Your task to perform on an android device: Open Chrome and go to the settings page Image 0: 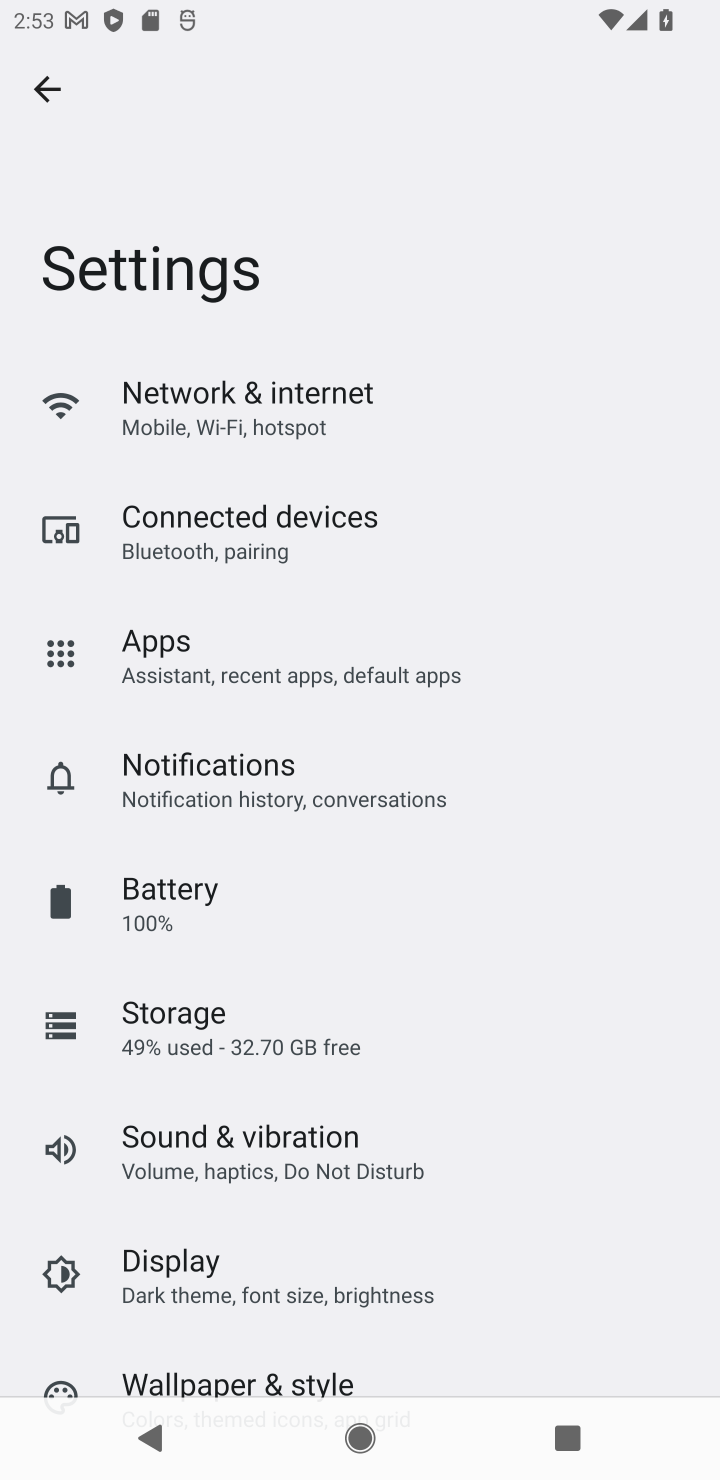
Step 0: press home button
Your task to perform on an android device: Open Chrome and go to the settings page Image 1: 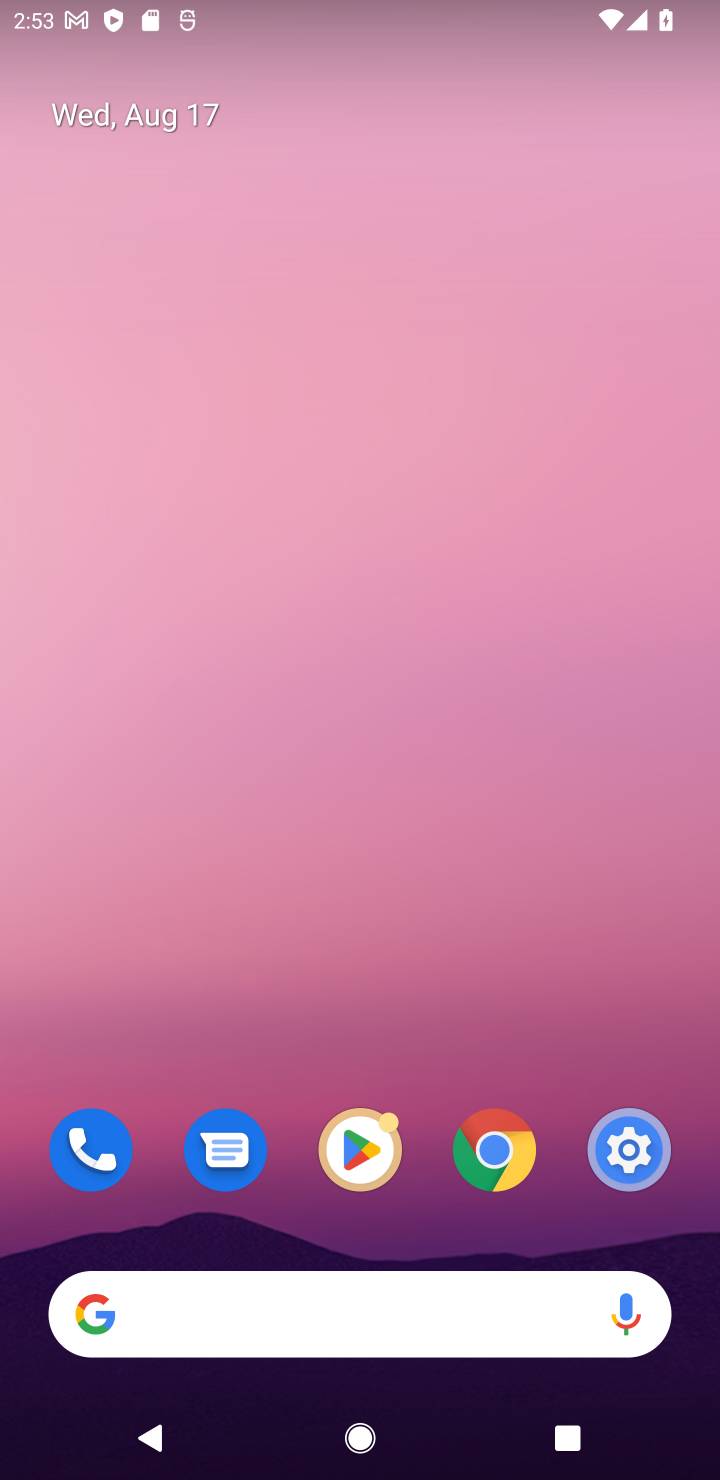
Step 1: drag from (573, 1223) to (117, 437)
Your task to perform on an android device: Open Chrome and go to the settings page Image 2: 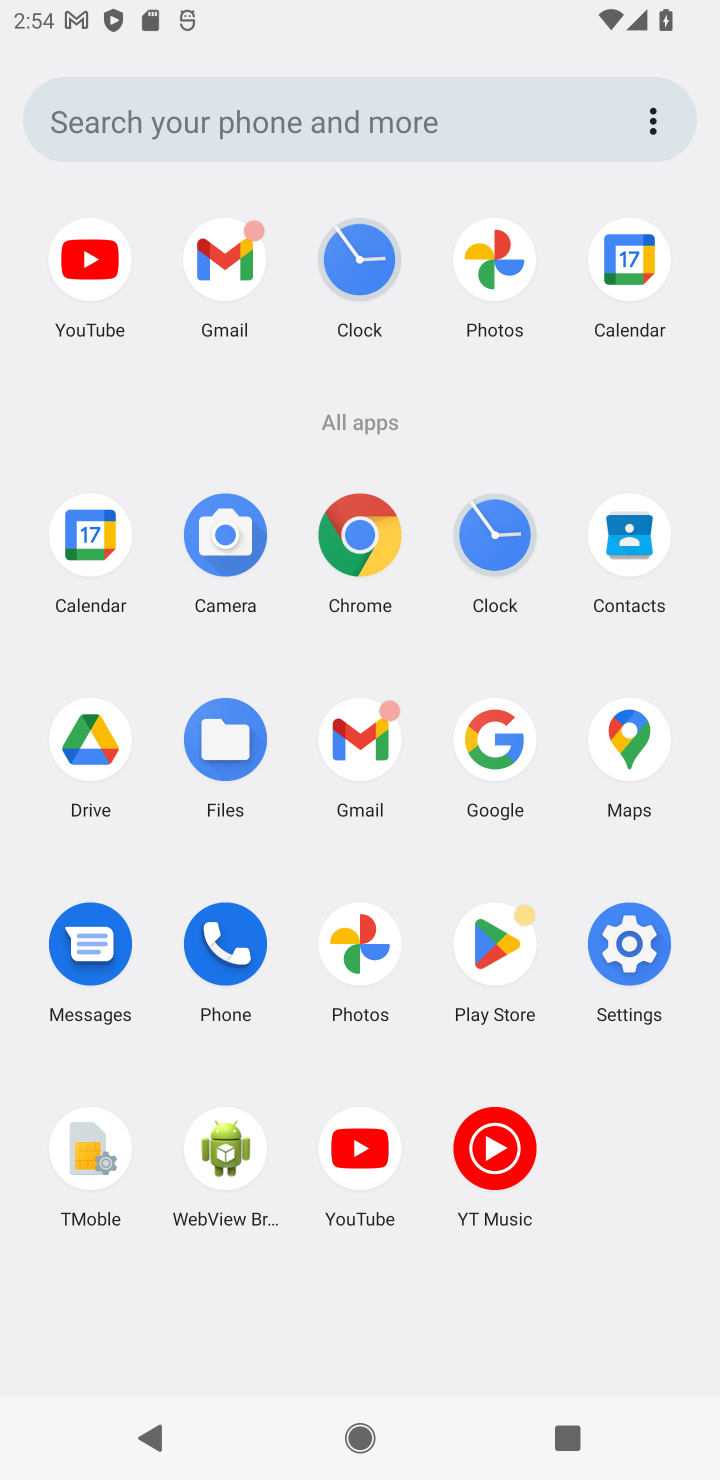
Step 2: click (323, 539)
Your task to perform on an android device: Open Chrome and go to the settings page Image 3: 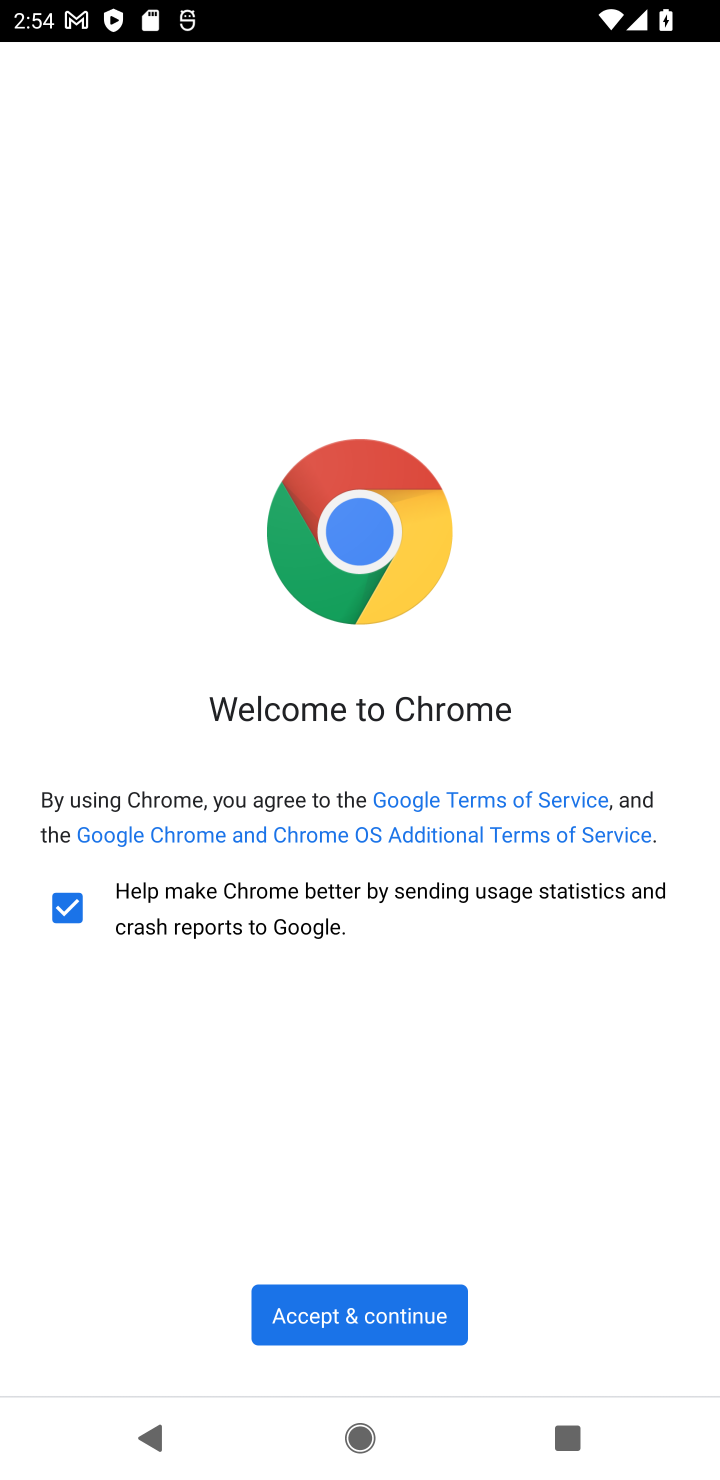
Step 3: click (345, 1317)
Your task to perform on an android device: Open Chrome and go to the settings page Image 4: 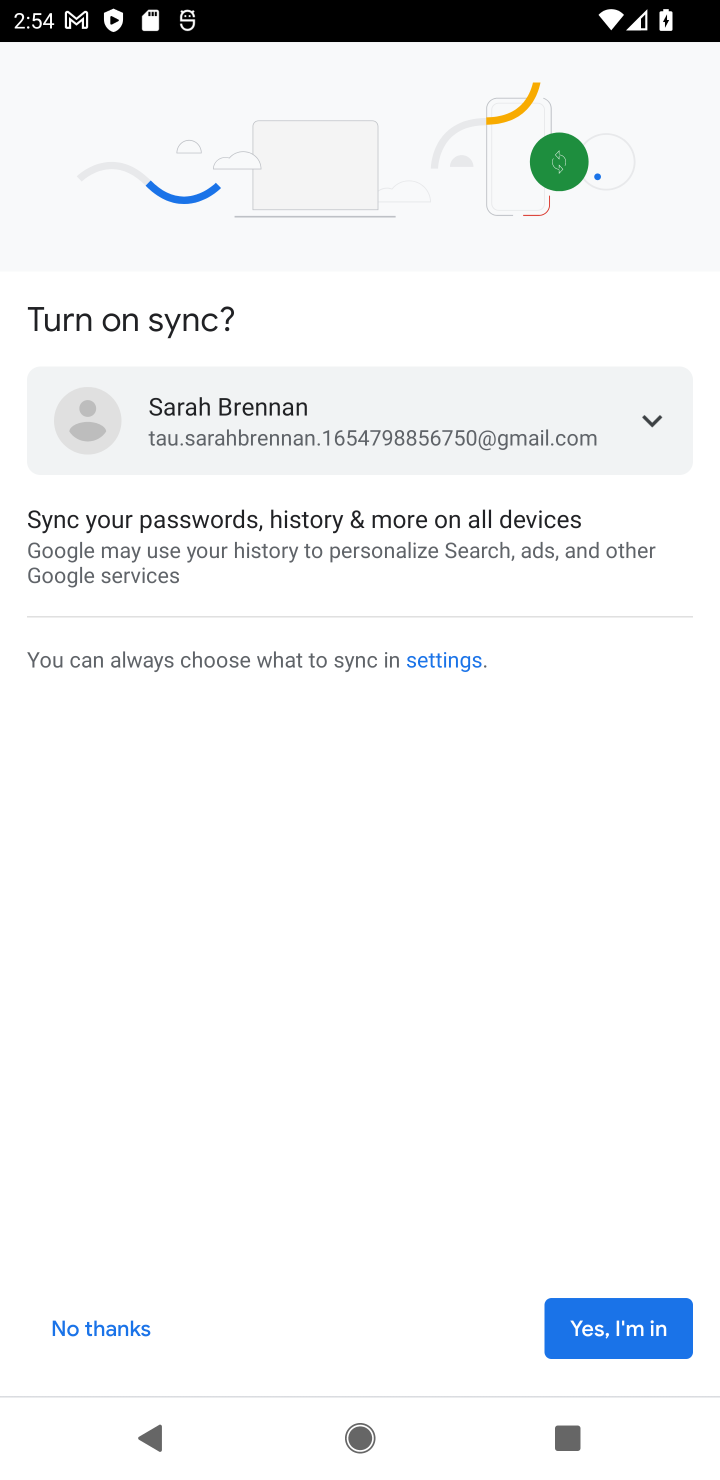
Step 4: click (596, 1339)
Your task to perform on an android device: Open Chrome and go to the settings page Image 5: 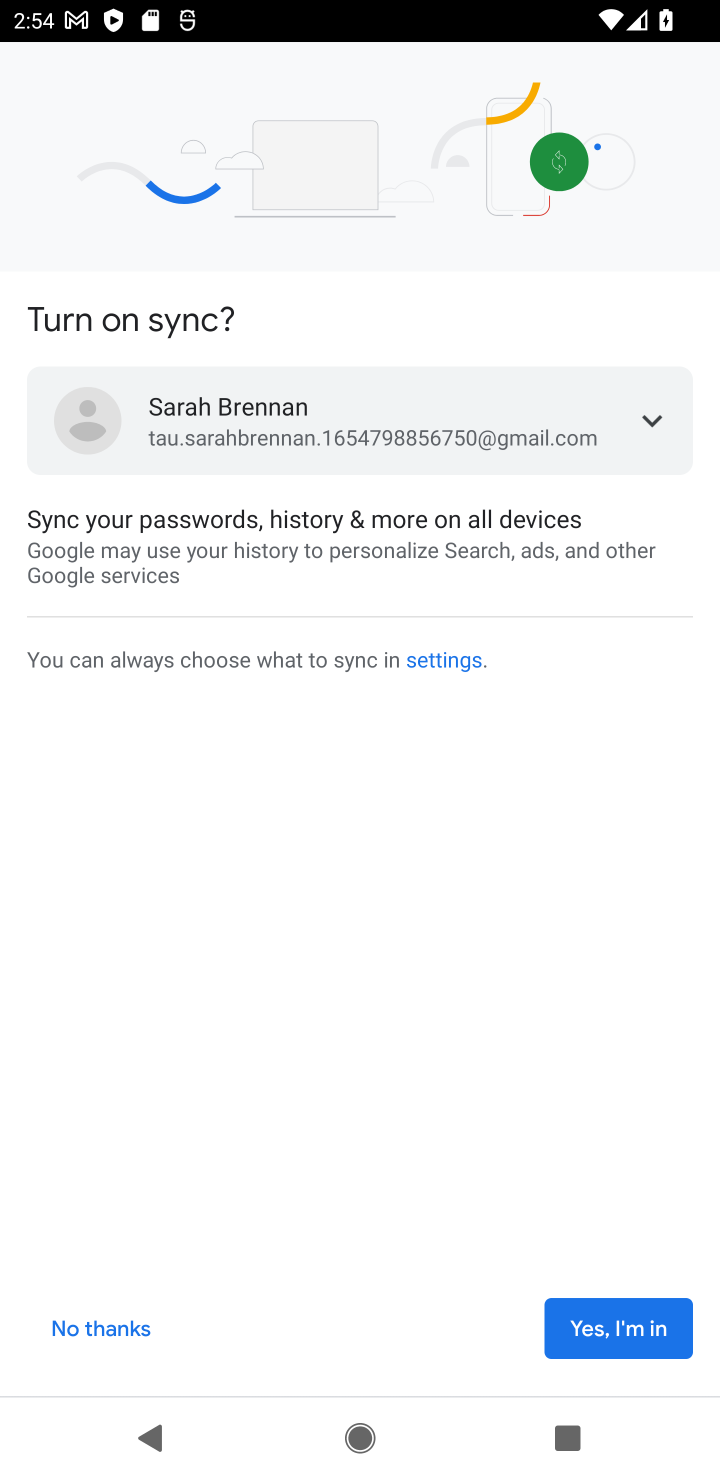
Step 5: click (599, 1335)
Your task to perform on an android device: Open Chrome and go to the settings page Image 6: 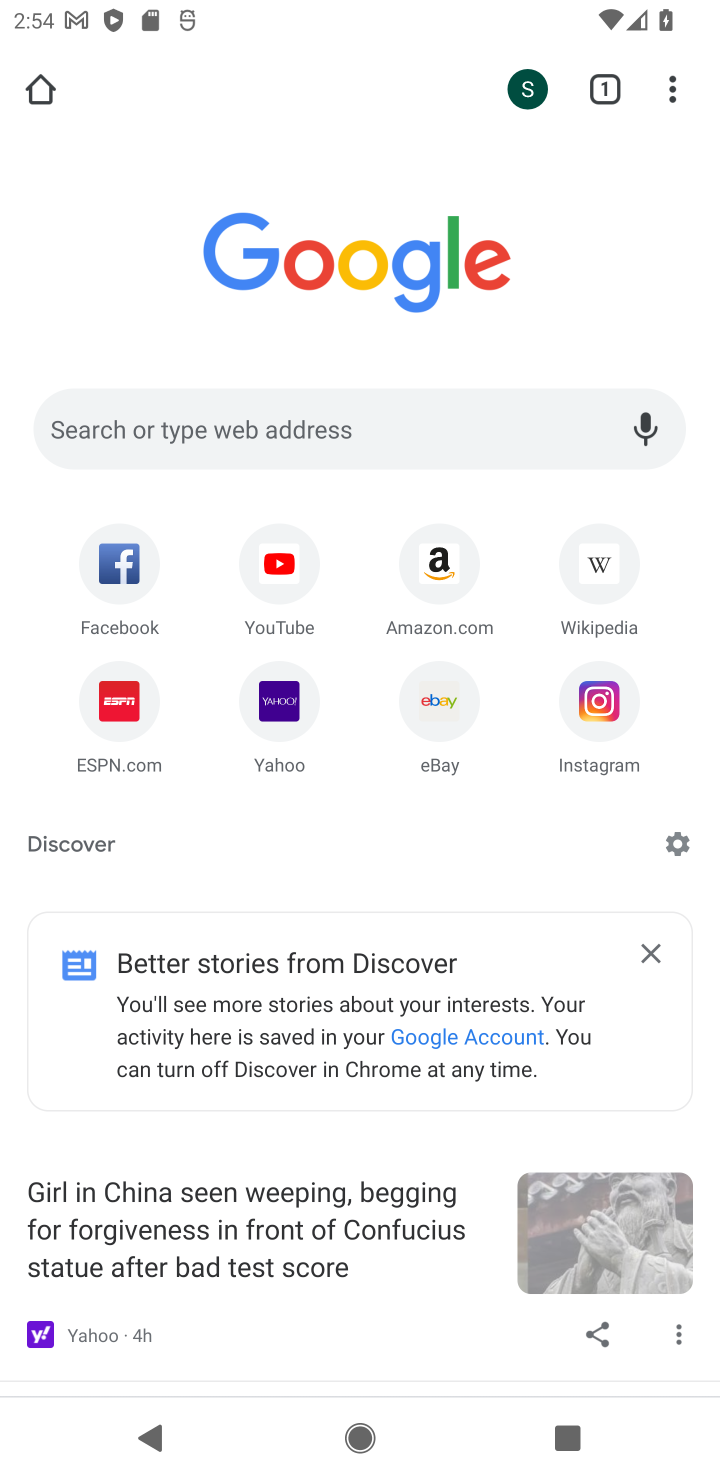
Step 6: click (666, 89)
Your task to perform on an android device: Open Chrome and go to the settings page Image 7: 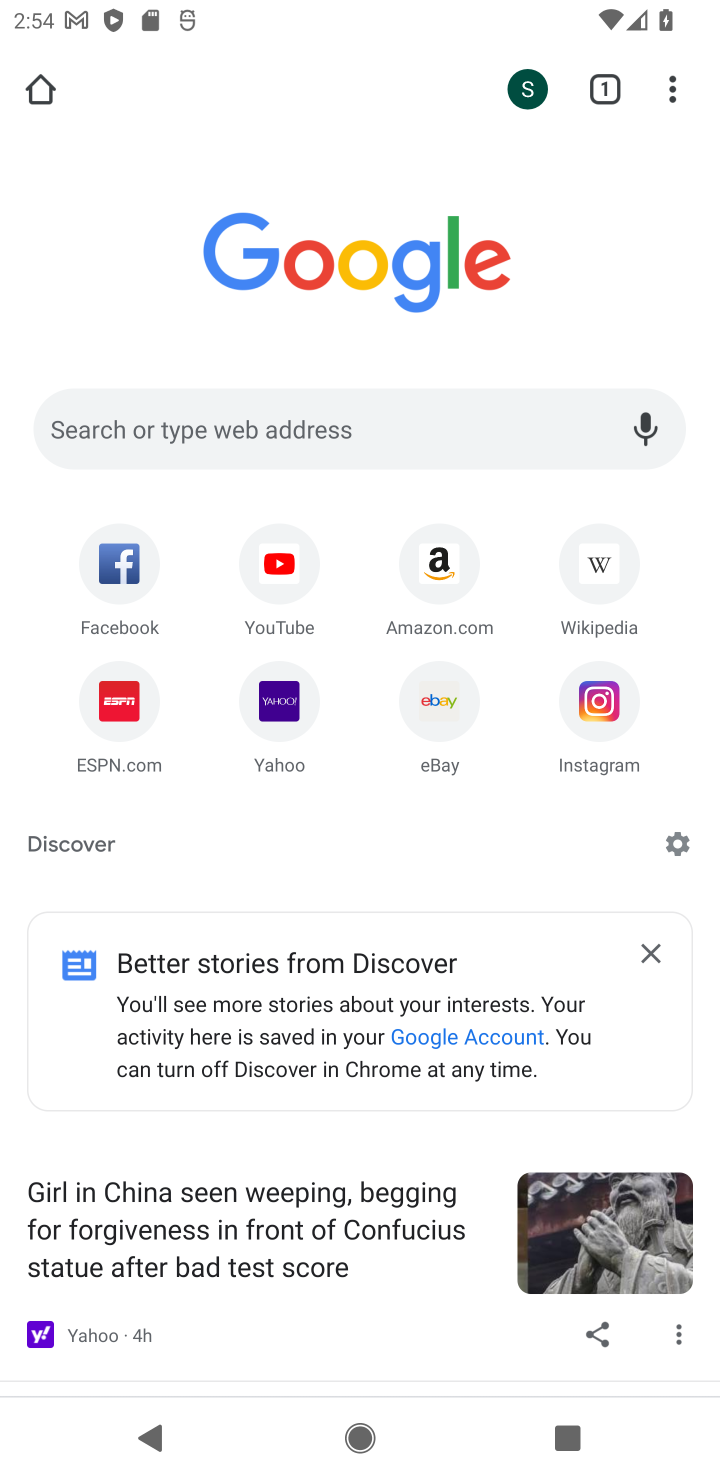
Step 7: click (666, 89)
Your task to perform on an android device: Open Chrome and go to the settings page Image 8: 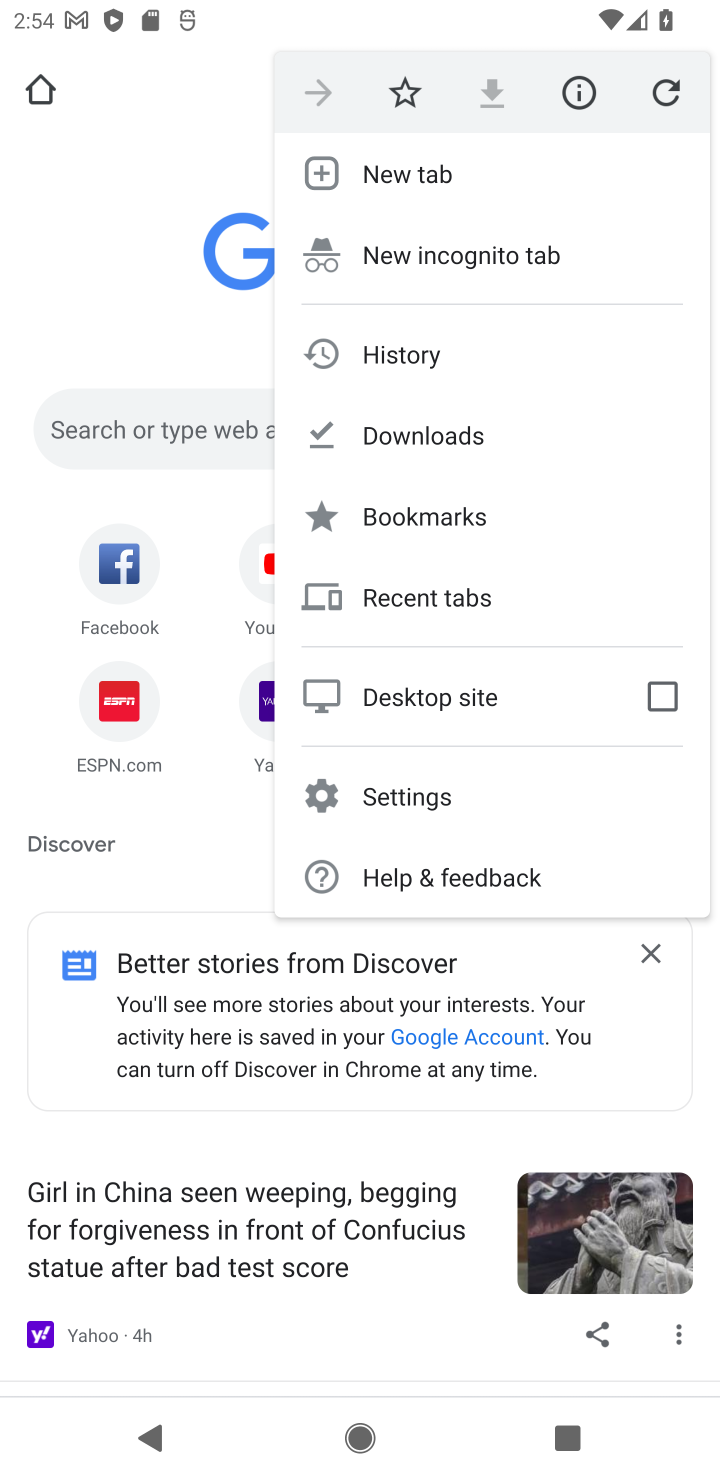
Step 8: click (391, 796)
Your task to perform on an android device: Open Chrome and go to the settings page Image 9: 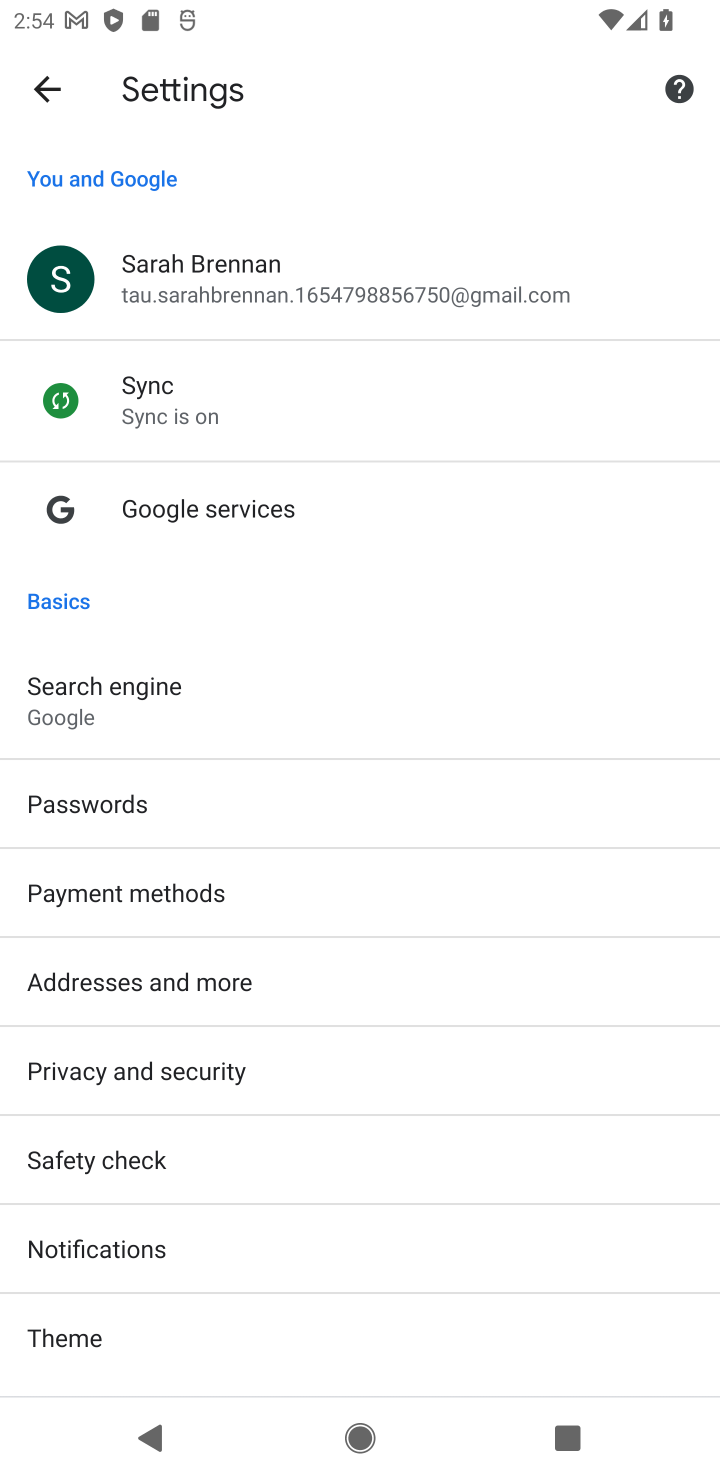
Step 9: task complete